Your task to perform on an android device: Open Yahoo.com Image 0: 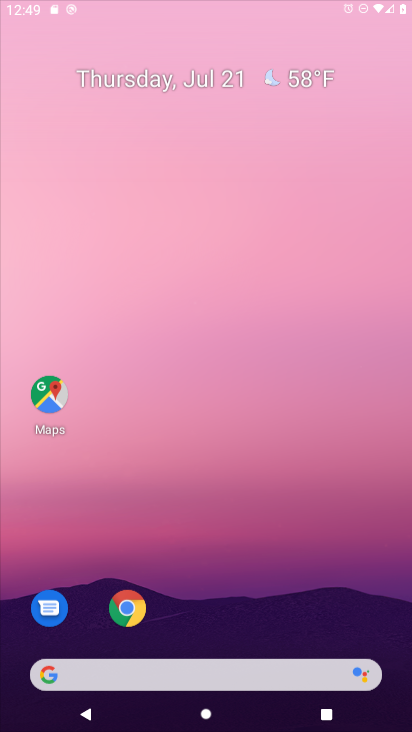
Step 0: press home button
Your task to perform on an android device: Open Yahoo.com Image 1: 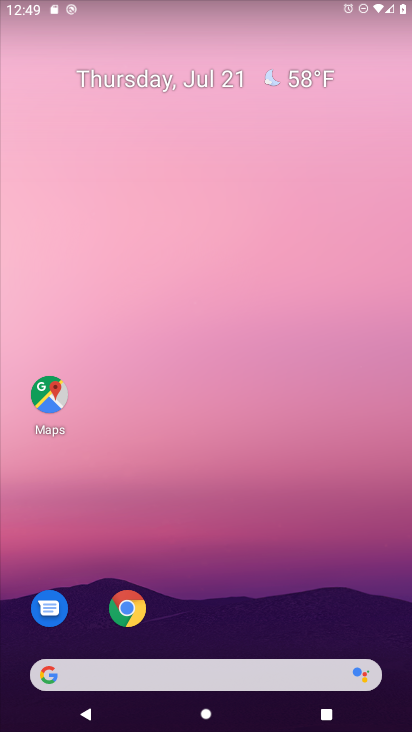
Step 1: click (43, 682)
Your task to perform on an android device: Open Yahoo.com Image 2: 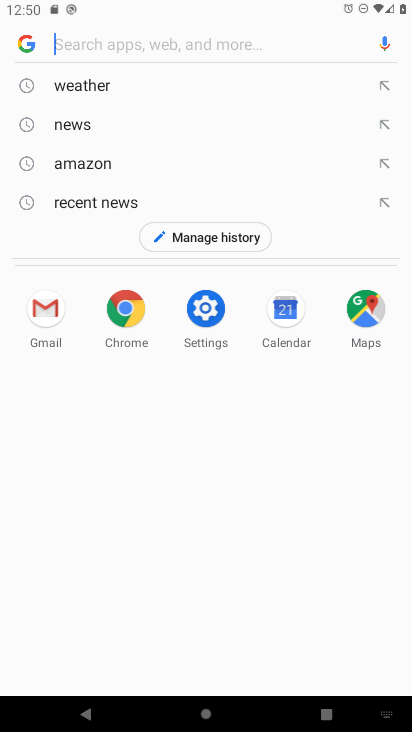
Step 2: type "Yahoo.com"
Your task to perform on an android device: Open Yahoo.com Image 3: 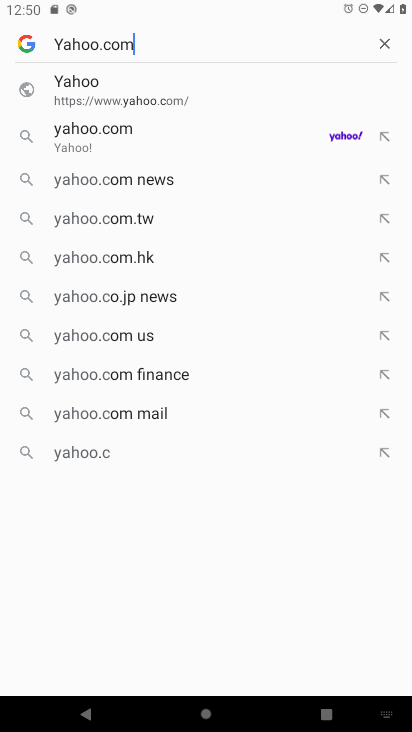
Step 3: press enter
Your task to perform on an android device: Open Yahoo.com Image 4: 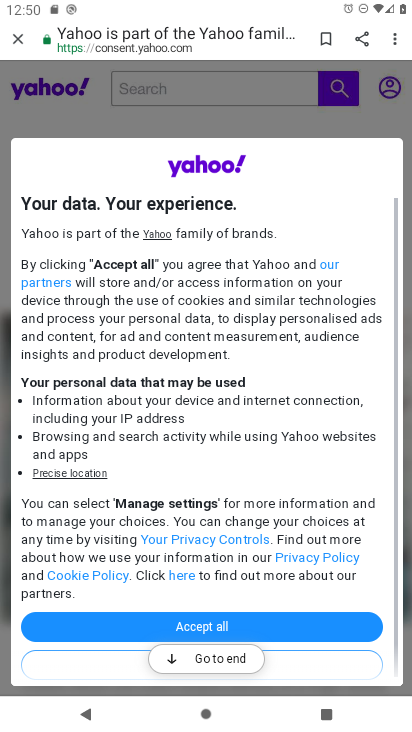
Step 4: click (121, 624)
Your task to perform on an android device: Open Yahoo.com Image 5: 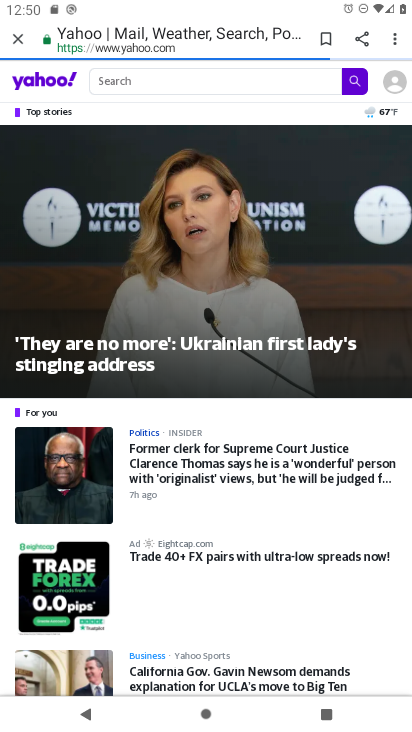
Step 5: task complete